Your task to perform on an android device: Clear all items from cart on costco.com. Search for razer deathadder on costco.com, select the first entry, add it to the cart, then select checkout. Image 0: 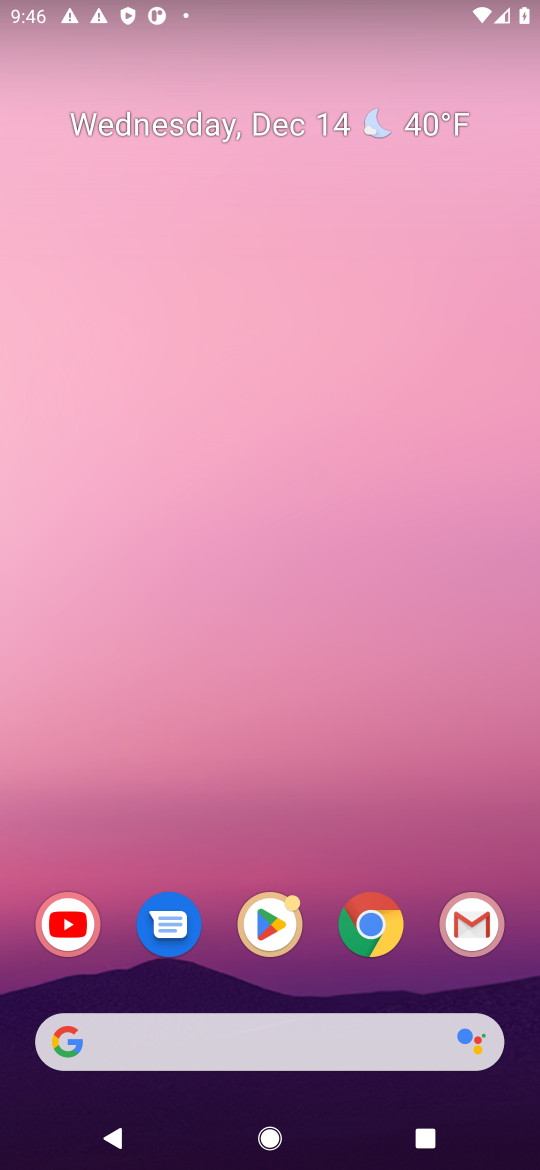
Step 0: task complete